Your task to perform on an android device: find which apps use the phone's location Image 0: 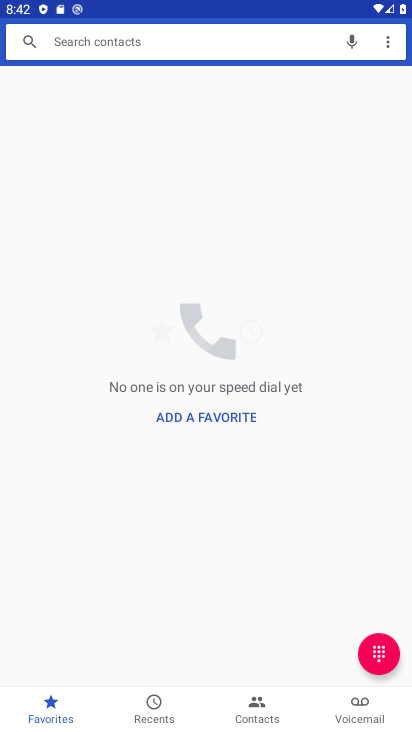
Step 0: press home button
Your task to perform on an android device: find which apps use the phone's location Image 1: 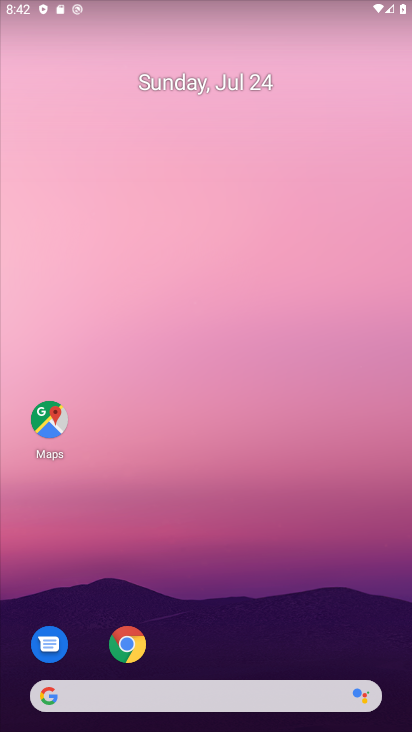
Step 1: drag from (247, 566) to (292, 382)
Your task to perform on an android device: find which apps use the phone's location Image 2: 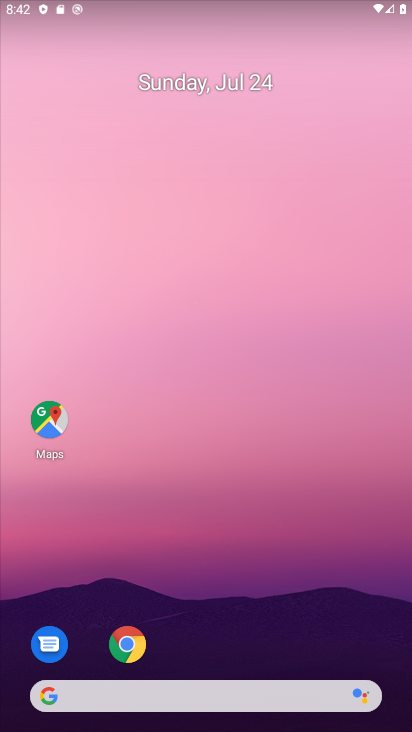
Step 2: drag from (249, 673) to (288, 406)
Your task to perform on an android device: find which apps use the phone's location Image 3: 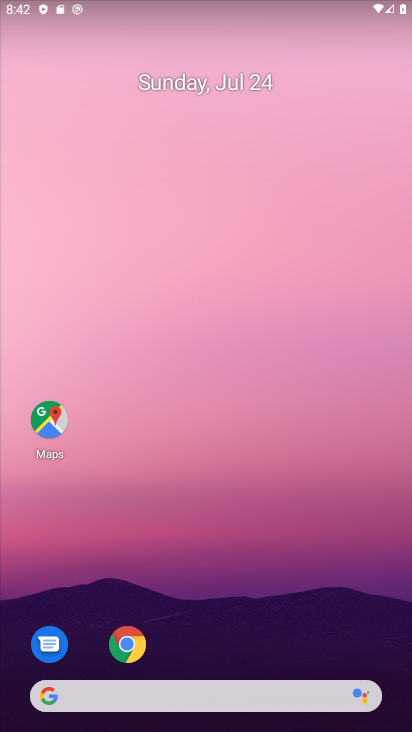
Step 3: drag from (213, 678) to (334, 214)
Your task to perform on an android device: find which apps use the phone's location Image 4: 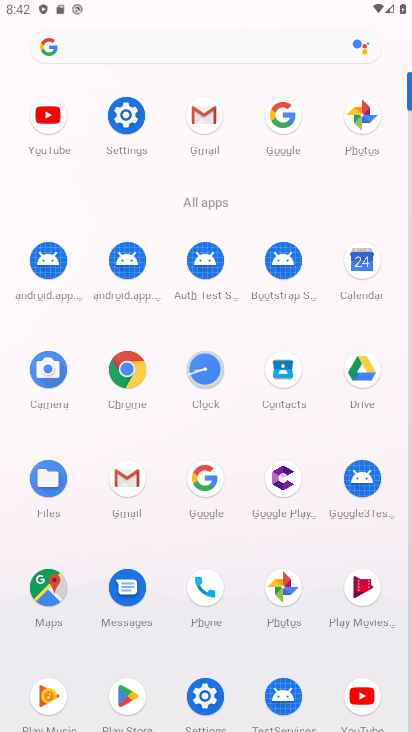
Step 4: click (122, 115)
Your task to perform on an android device: find which apps use the phone's location Image 5: 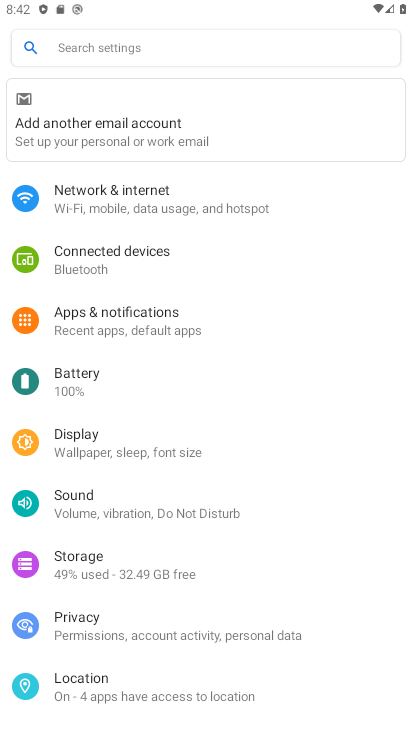
Step 5: click (120, 698)
Your task to perform on an android device: find which apps use the phone's location Image 6: 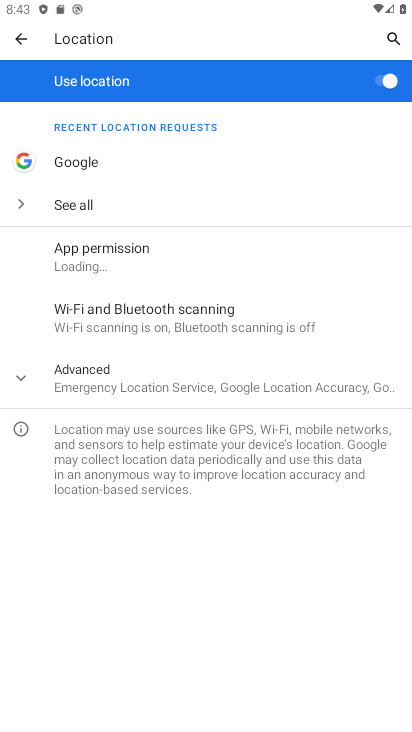
Step 6: click (89, 254)
Your task to perform on an android device: find which apps use the phone's location Image 7: 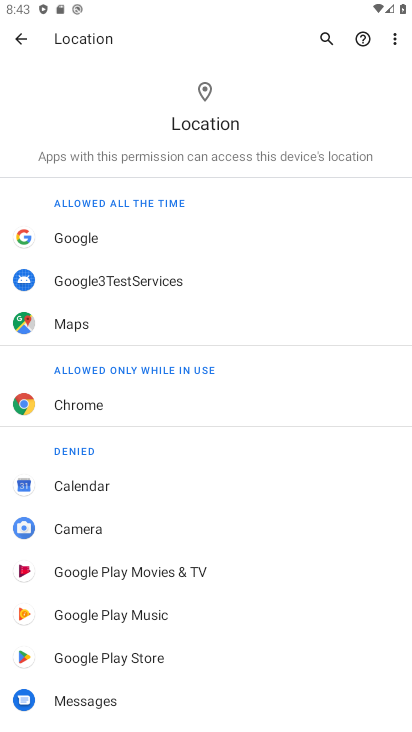
Step 7: task complete